Your task to perform on an android device: turn on location history Image 0: 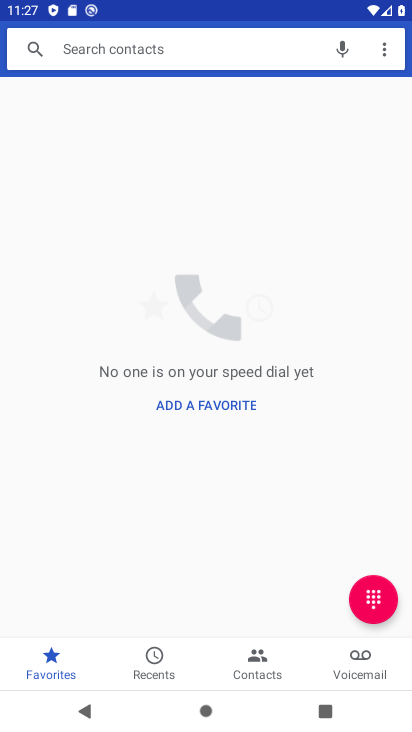
Step 0: press home button
Your task to perform on an android device: turn on location history Image 1: 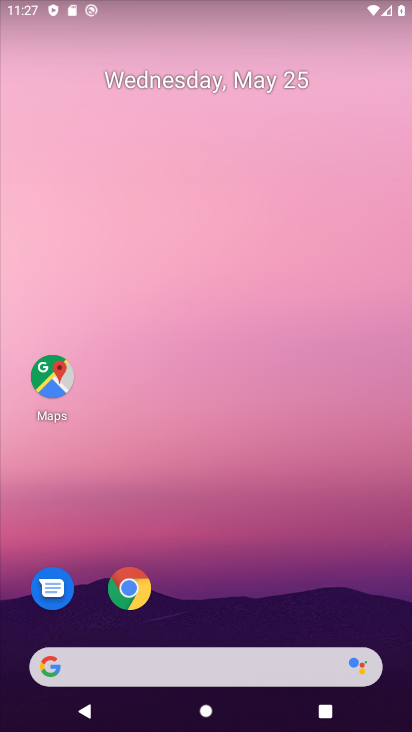
Step 1: click (52, 385)
Your task to perform on an android device: turn on location history Image 2: 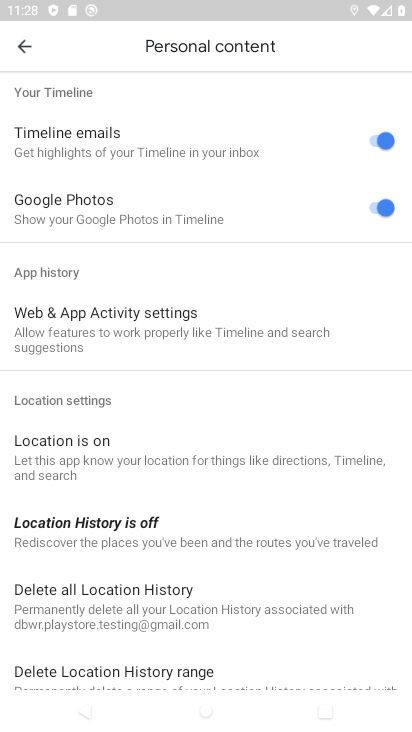
Step 2: drag from (244, 625) to (207, 436)
Your task to perform on an android device: turn on location history Image 3: 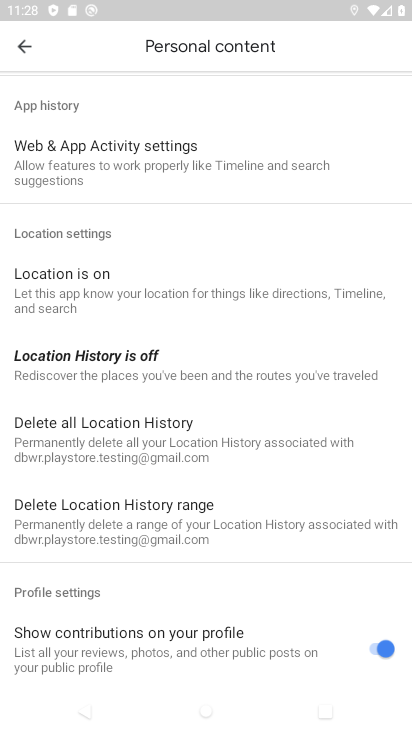
Step 3: click (104, 358)
Your task to perform on an android device: turn on location history Image 4: 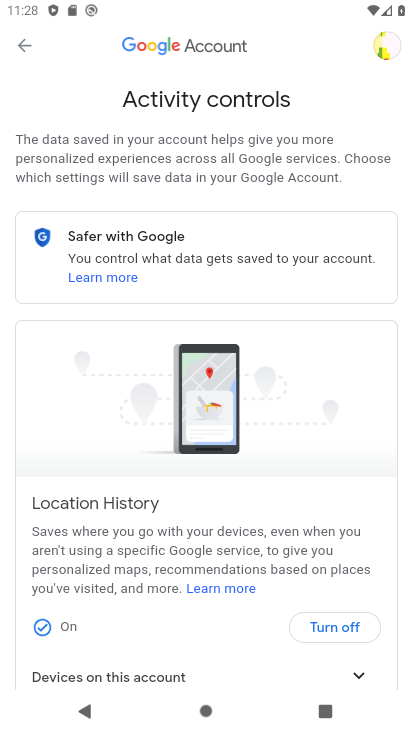
Step 4: task complete